Your task to perform on an android device: check the backup settings in the google photos Image 0: 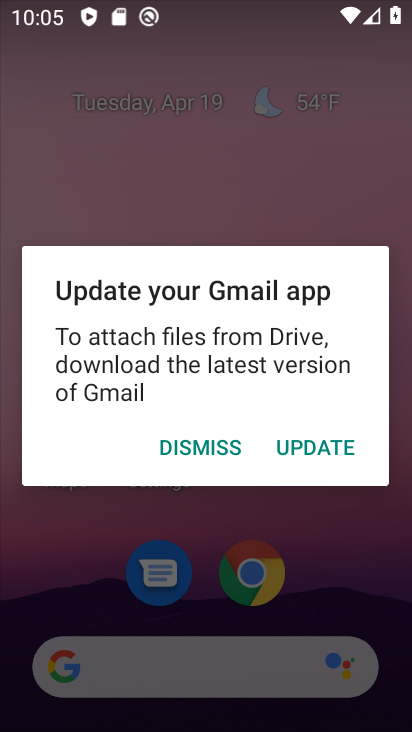
Step 0: press home button
Your task to perform on an android device: check the backup settings in the google photos Image 1: 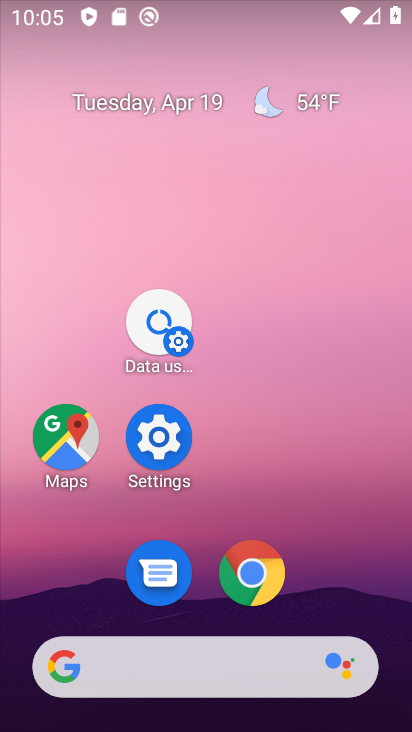
Step 1: drag from (354, 601) to (368, 10)
Your task to perform on an android device: check the backup settings in the google photos Image 2: 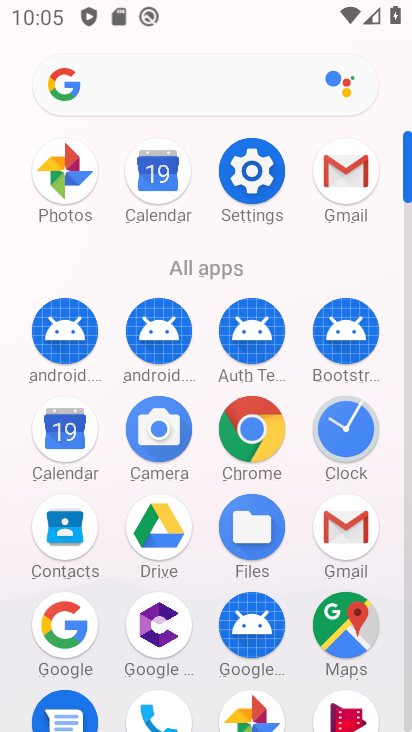
Step 2: click (404, 634)
Your task to perform on an android device: check the backup settings in the google photos Image 3: 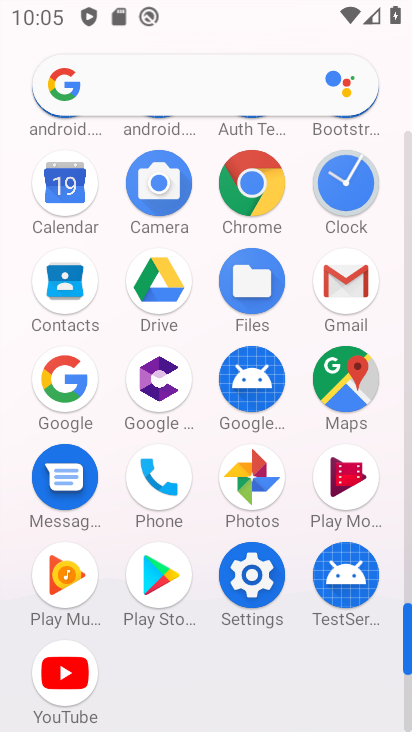
Step 3: click (253, 477)
Your task to perform on an android device: check the backup settings in the google photos Image 4: 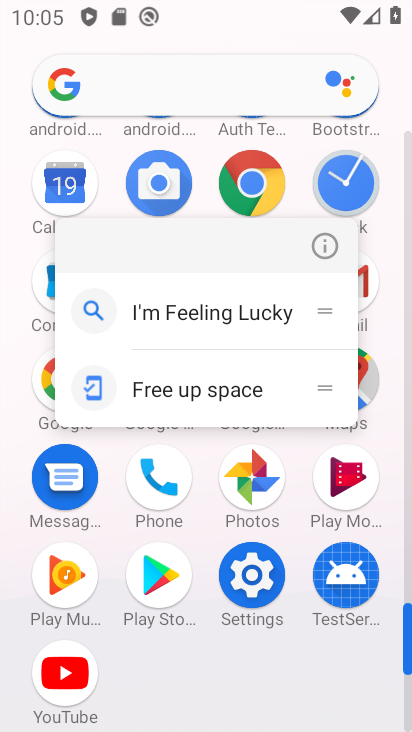
Step 4: click (250, 482)
Your task to perform on an android device: check the backup settings in the google photos Image 5: 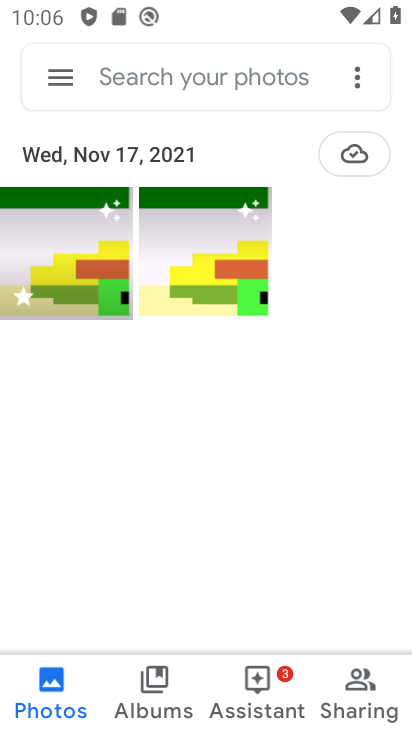
Step 5: click (67, 80)
Your task to perform on an android device: check the backup settings in the google photos Image 6: 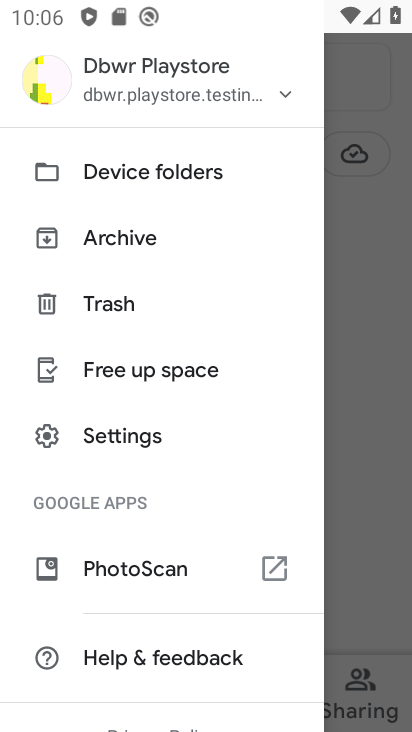
Step 6: click (126, 445)
Your task to perform on an android device: check the backup settings in the google photos Image 7: 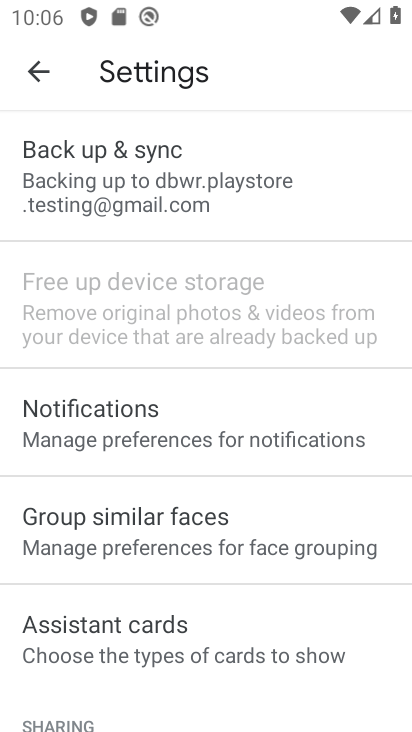
Step 7: click (111, 203)
Your task to perform on an android device: check the backup settings in the google photos Image 8: 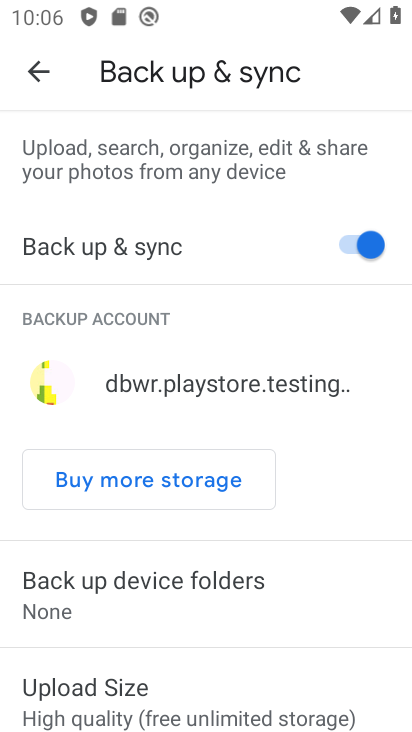
Step 8: task complete